Your task to perform on an android device: Go to settings Image 0: 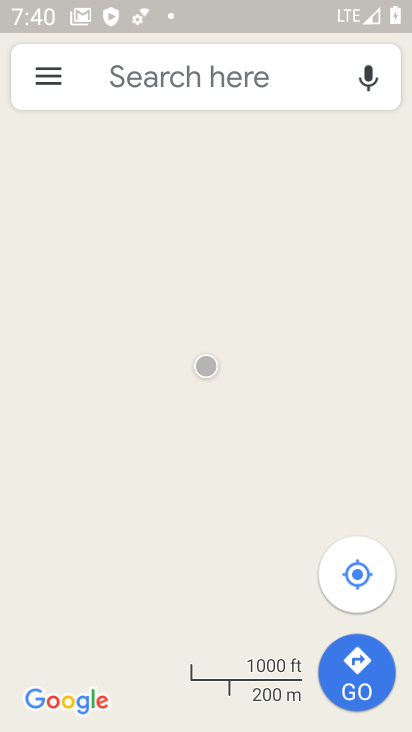
Step 0: press home button
Your task to perform on an android device: Go to settings Image 1: 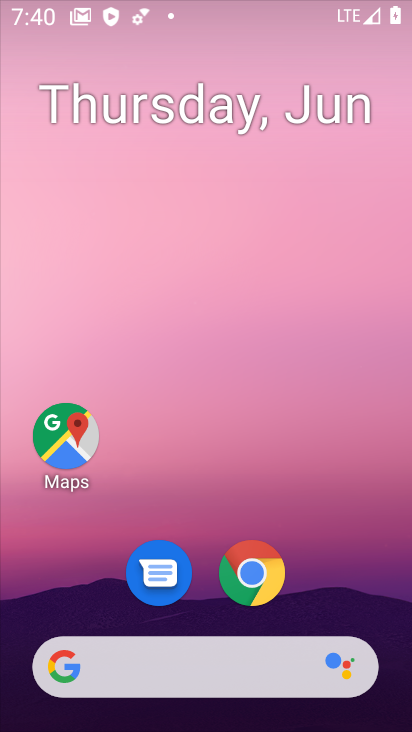
Step 1: drag from (243, 592) to (245, 207)
Your task to perform on an android device: Go to settings Image 2: 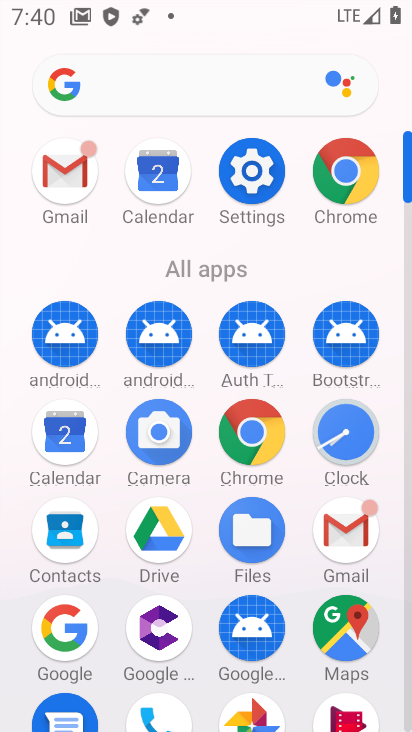
Step 2: click (251, 178)
Your task to perform on an android device: Go to settings Image 3: 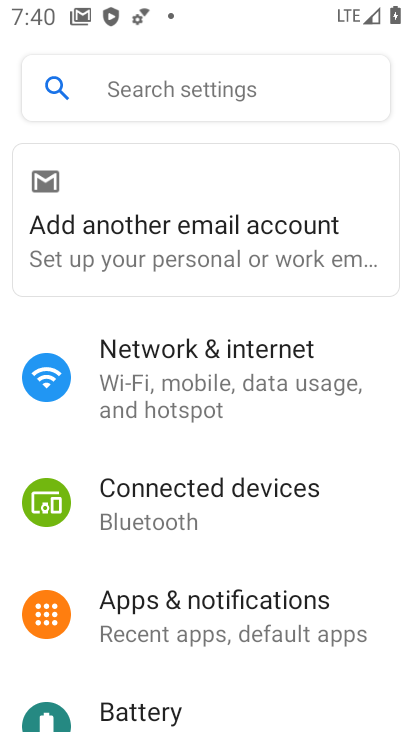
Step 3: task complete